Your task to perform on an android device: show emergency info Image 0: 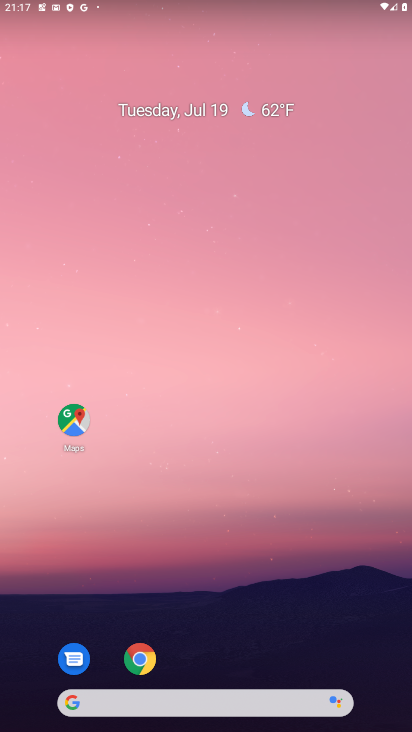
Step 0: drag from (305, 577) to (161, 79)
Your task to perform on an android device: show emergency info Image 1: 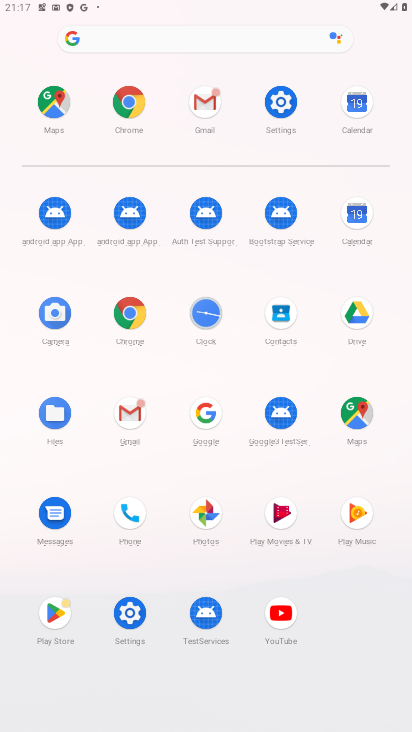
Step 1: click (273, 106)
Your task to perform on an android device: show emergency info Image 2: 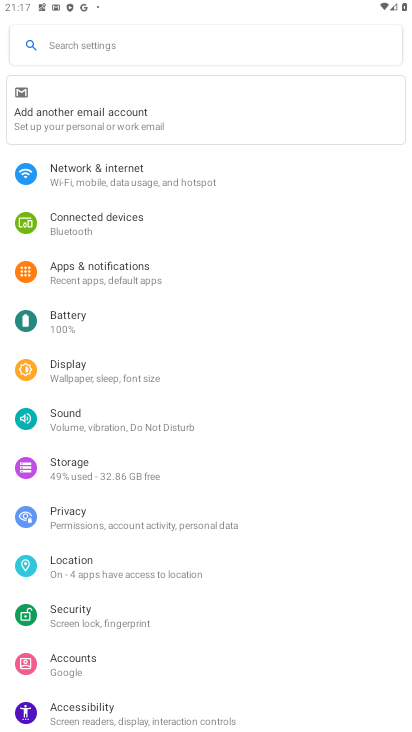
Step 2: drag from (259, 632) to (146, 136)
Your task to perform on an android device: show emergency info Image 3: 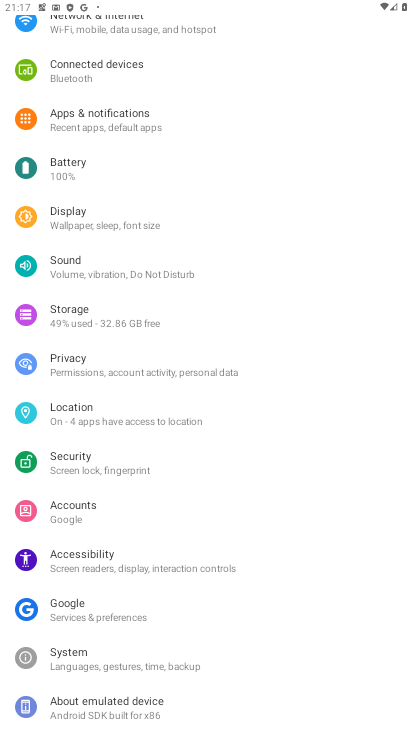
Step 3: click (128, 709)
Your task to perform on an android device: show emergency info Image 4: 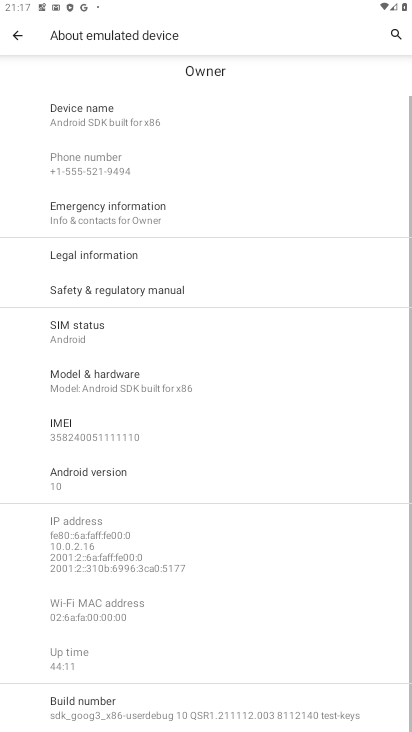
Step 4: click (127, 210)
Your task to perform on an android device: show emergency info Image 5: 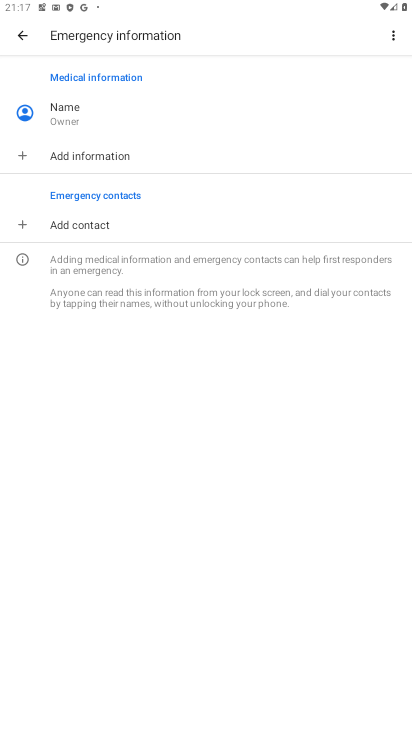
Step 5: task complete